Your task to perform on an android device: Go to ESPN.com Image 0: 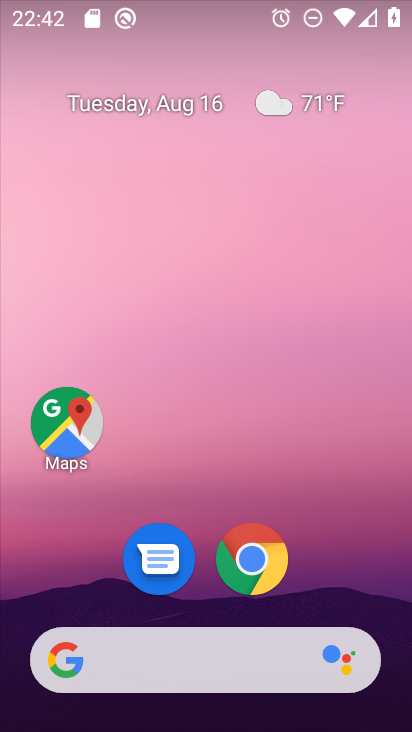
Step 0: click (253, 562)
Your task to perform on an android device: Go to ESPN.com Image 1: 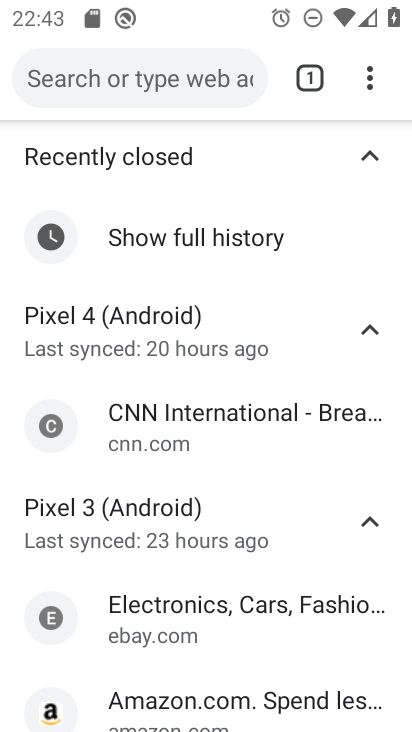
Step 1: click (183, 104)
Your task to perform on an android device: Go to ESPN.com Image 2: 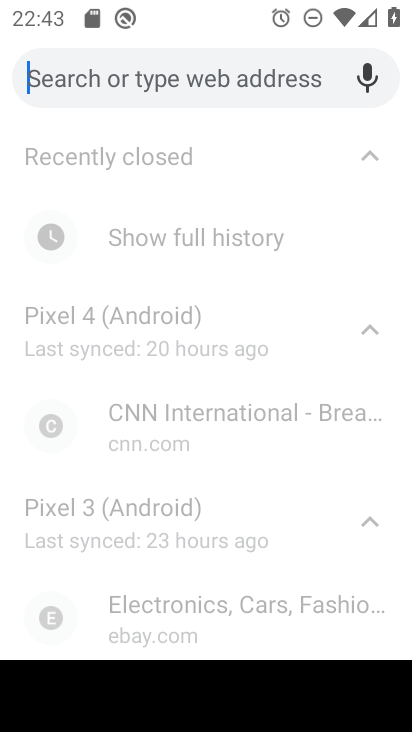
Step 2: type "ESPN.com"
Your task to perform on an android device: Go to ESPN.com Image 3: 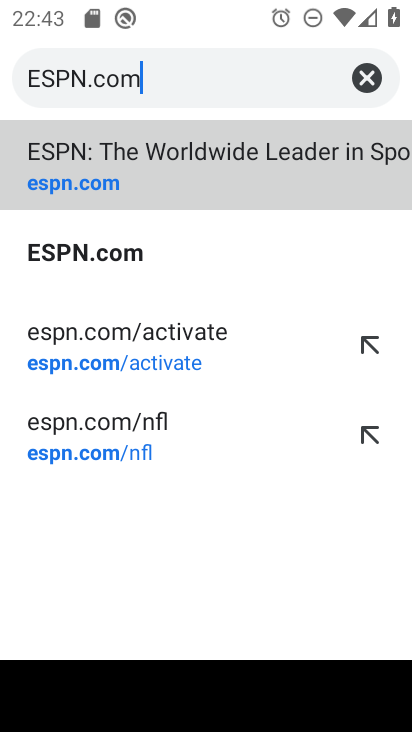
Step 3: click (88, 266)
Your task to perform on an android device: Go to ESPN.com Image 4: 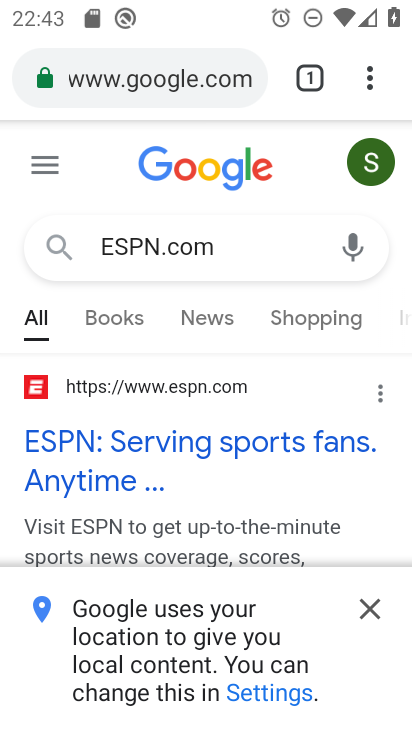
Step 4: click (269, 457)
Your task to perform on an android device: Go to ESPN.com Image 5: 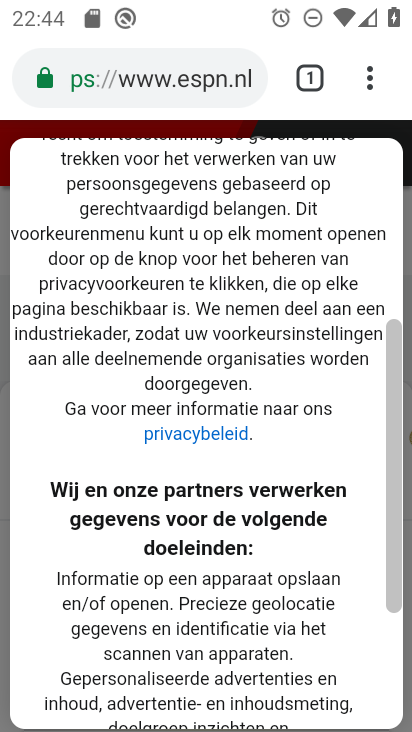
Step 5: task complete